Your task to perform on an android device: Open eBay Image 0: 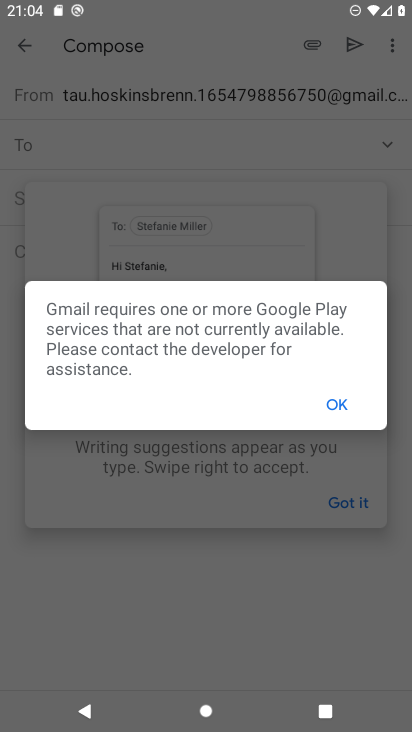
Step 0: press home button
Your task to perform on an android device: Open eBay Image 1: 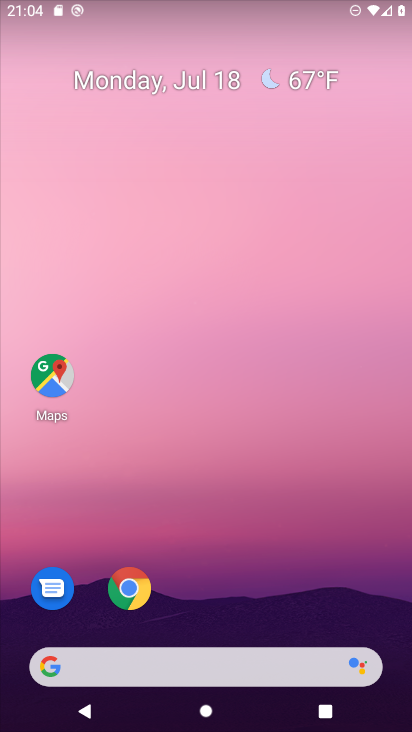
Step 1: click (131, 591)
Your task to perform on an android device: Open eBay Image 2: 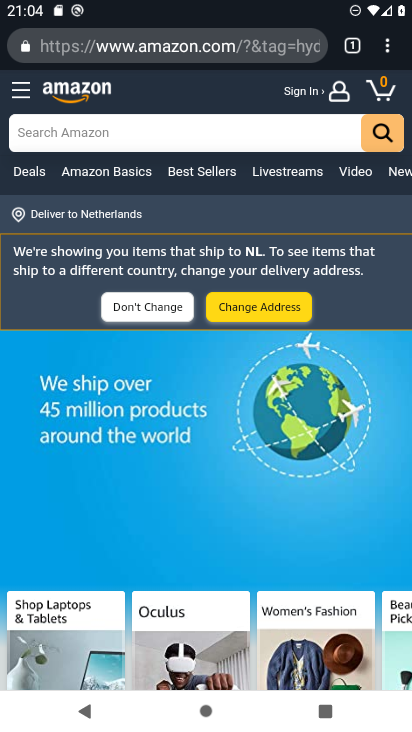
Step 2: click (242, 52)
Your task to perform on an android device: Open eBay Image 3: 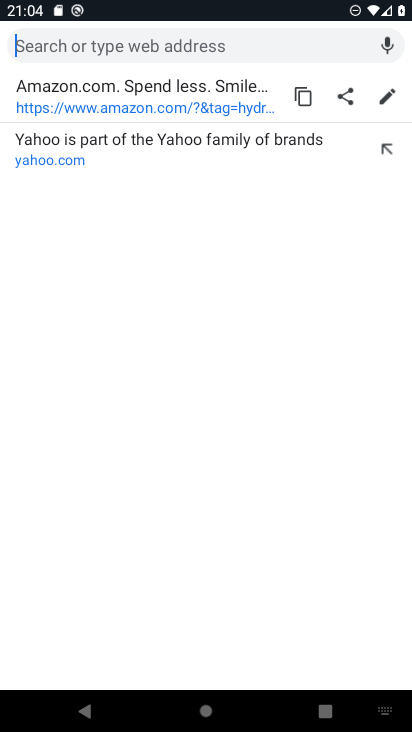
Step 3: type "eBay"
Your task to perform on an android device: Open eBay Image 4: 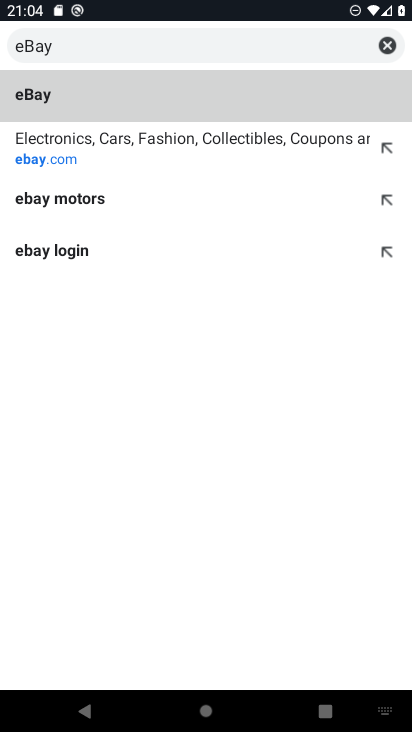
Step 4: click (55, 93)
Your task to perform on an android device: Open eBay Image 5: 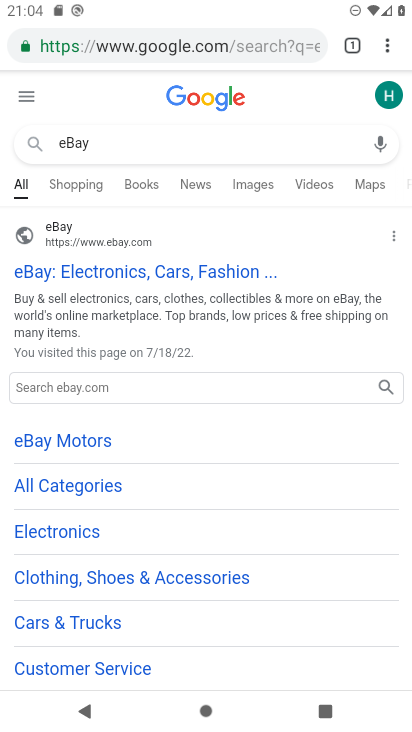
Step 5: click (69, 271)
Your task to perform on an android device: Open eBay Image 6: 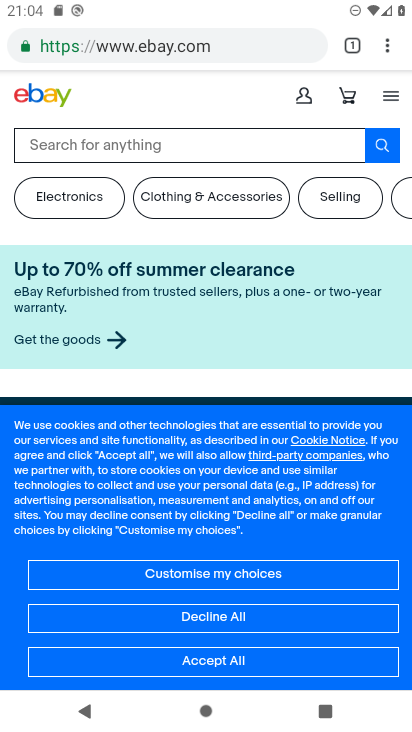
Step 6: click (208, 670)
Your task to perform on an android device: Open eBay Image 7: 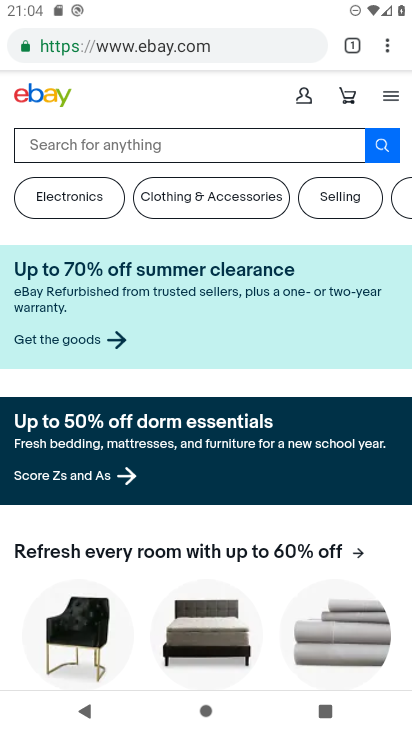
Step 7: task complete